Your task to perform on an android device: check google app version Image 0: 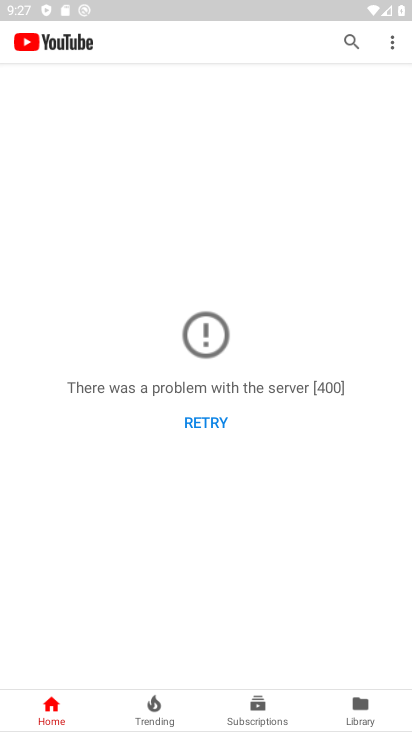
Step 0: press home button
Your task to perform on an android device: check google app version Image 1: 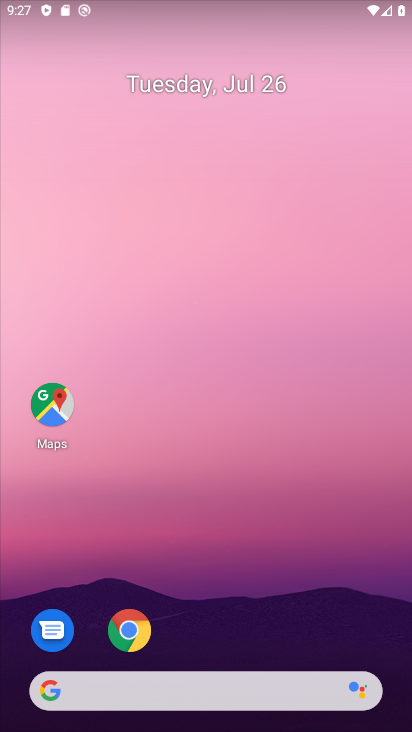
Step 1: click (121, 625)
Your task to perform on an android device: check google app version Image 2: 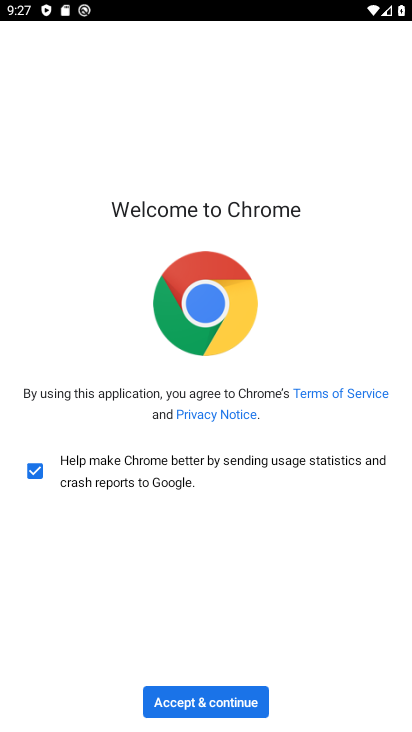
Step 2: click (211, 699)
Your task to perform on an android device: check google app version Image 3: 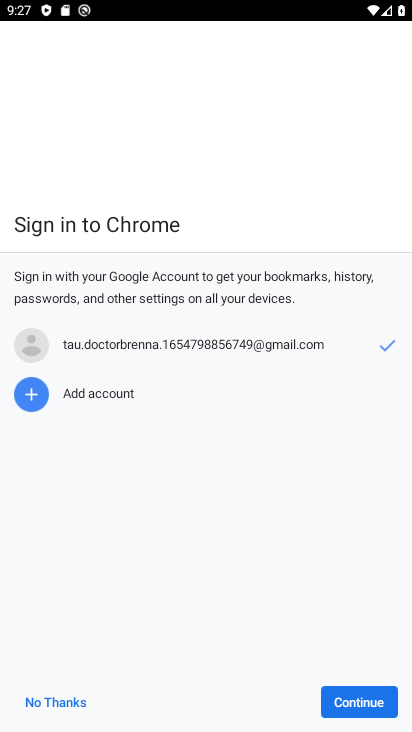
Step 3: click (363, 700)
Your task to perform on an android device: check google app version Image 4: 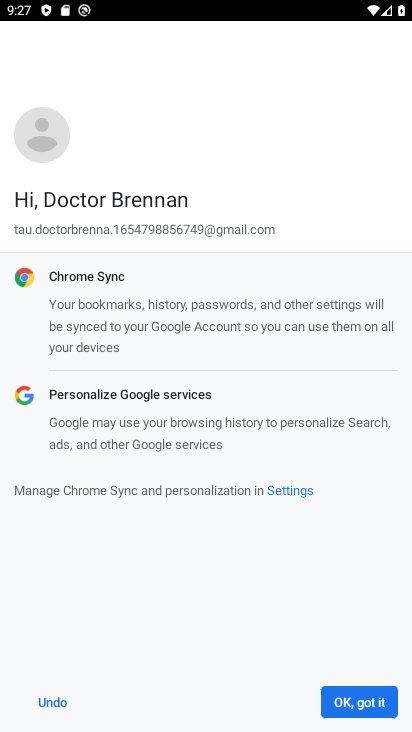
Step 4: click (356, 702)
Your task to perform on an android device: check google app version Image 5: 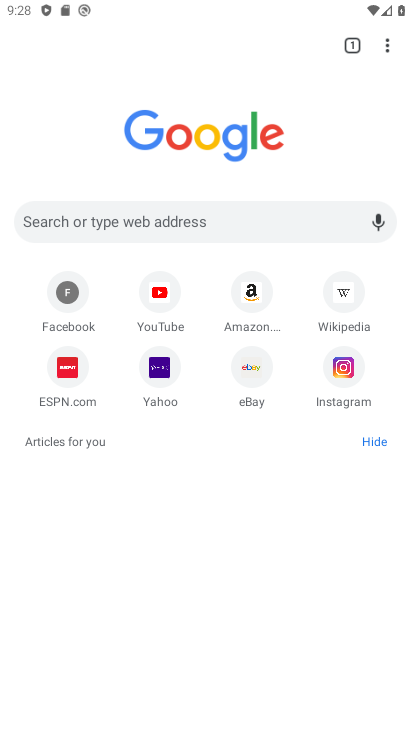
Step 5: click (387, 49)
Your task to perform on an android device: check google app version Image 6: 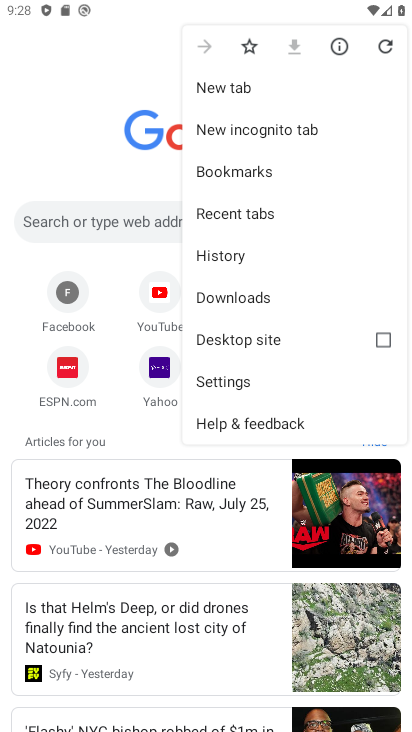
Step 6: click (229, 387)
Your task to perform on an android device: check google app version Image 7: 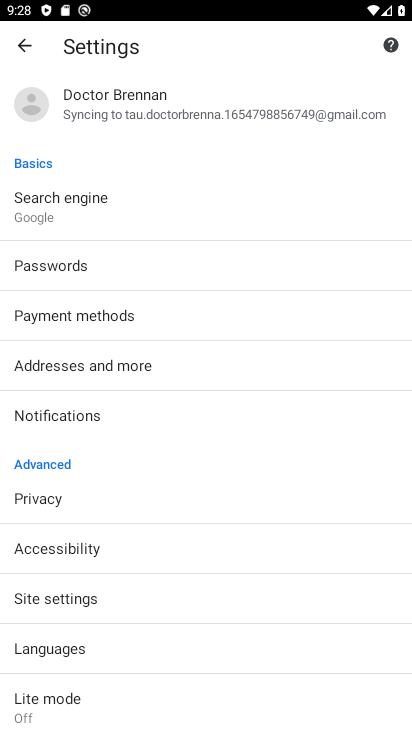
Step 7: drag from (169, 657) to (230, 172)
Your task to perform on an android device: check google app version Image 8: 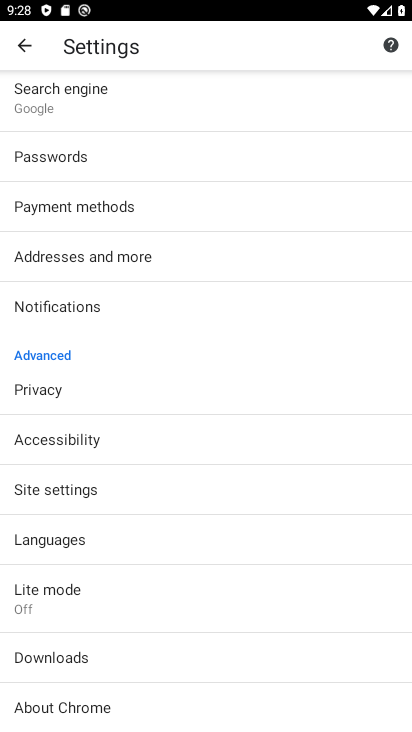
Step 8: click (80, 713)
Your task to perform on an android device: check google app version Image 9: 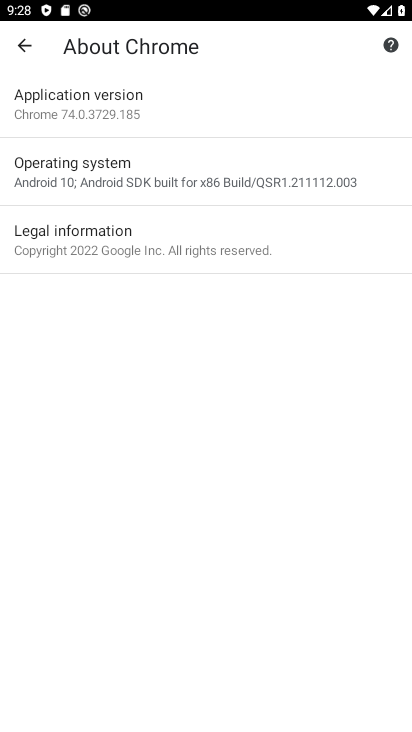
Step 9: click (78, 101)
Your task to perform on an android device: check google app version Image 10: 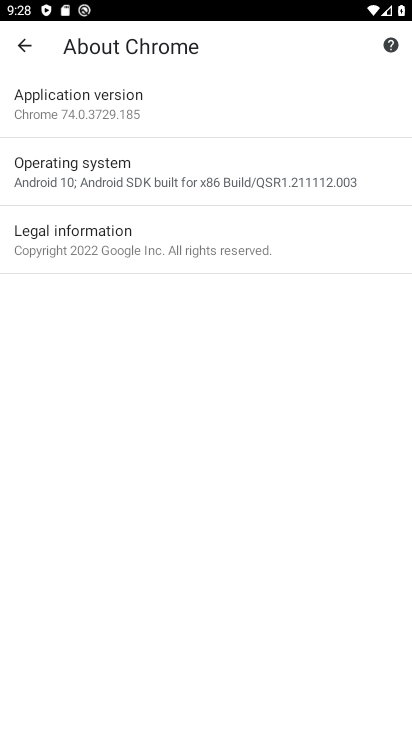
Step 10: task complete